Your task to perform on an android device: find snoozed emails in the gmail app Image 0: 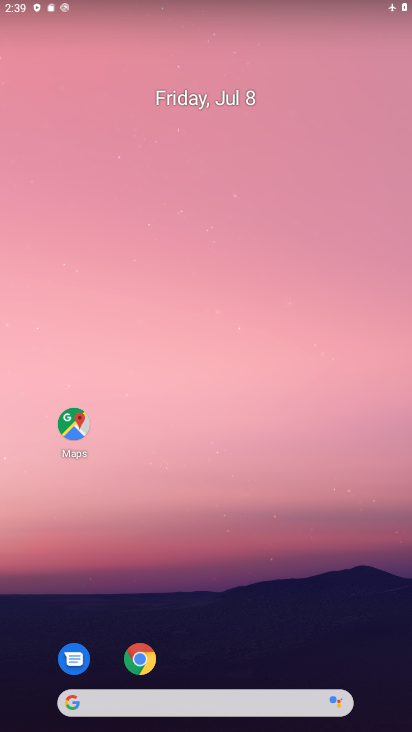
Step 0: drag from (316, 610) to (307, 202)
Your task to perform on an android device: find snoozed emails in the gmail app Image 1: 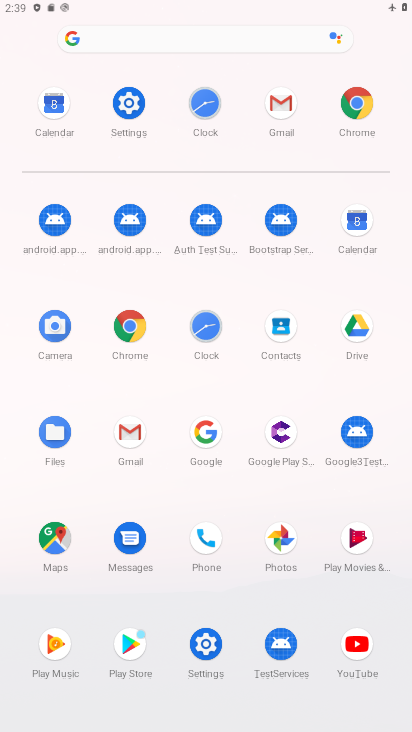
Step 1: click (131, 459)
Your task to perform on an android device: find snoozed emails in the gmail app Image 2: 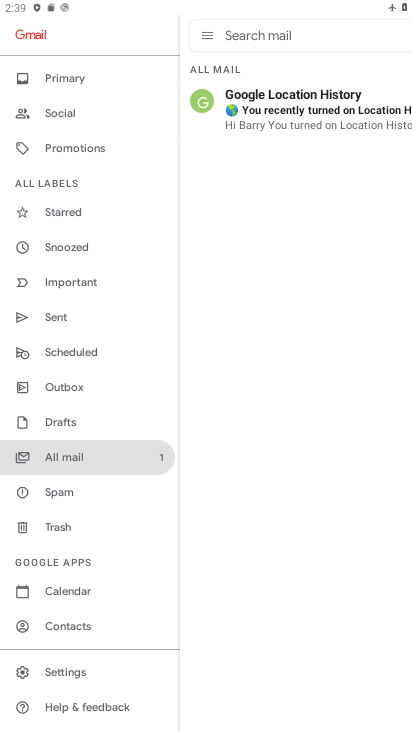
Step 2: click (95, 252)
Your task to perform on an android device: find snoozed emails in the gmail app Image 3: 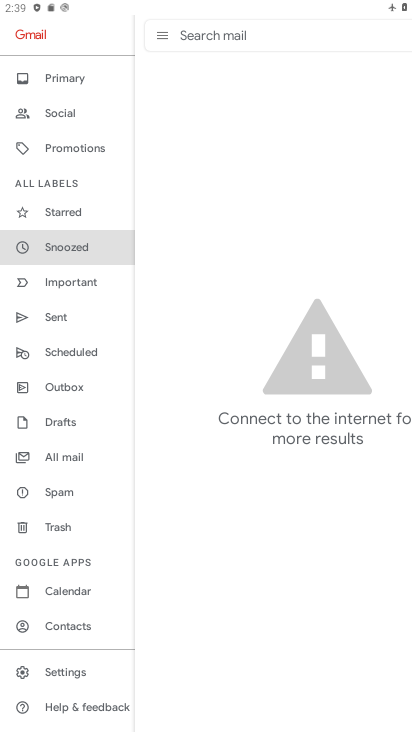
Step 3: task complete